Your task to perform on an android device: delete location history Image 0: 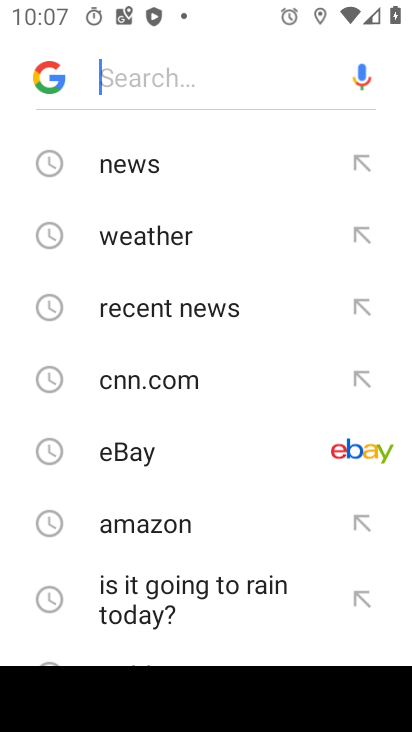
Step 0: press back button
Your task to perform on an android device: delete location history Image 1: 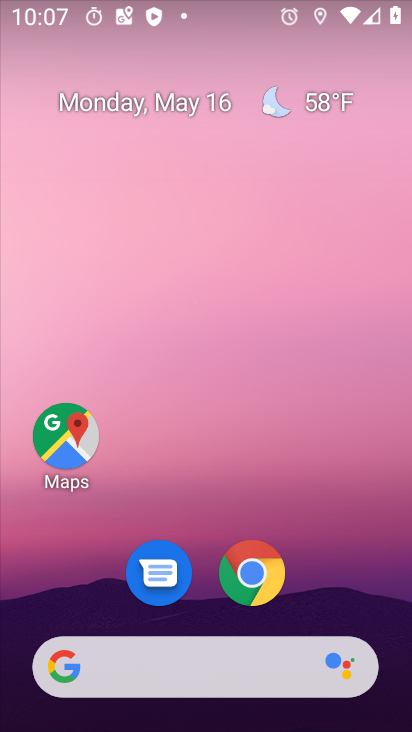
Step 1: click (93, 424)
Your task to perform on an android device: delete location history Image 2: 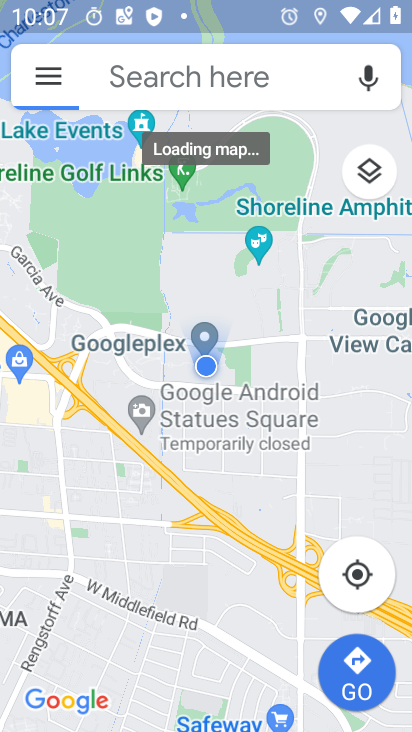
Step 2: click (64, 81)
Your task to perform on an android device: delete location history Image 3: 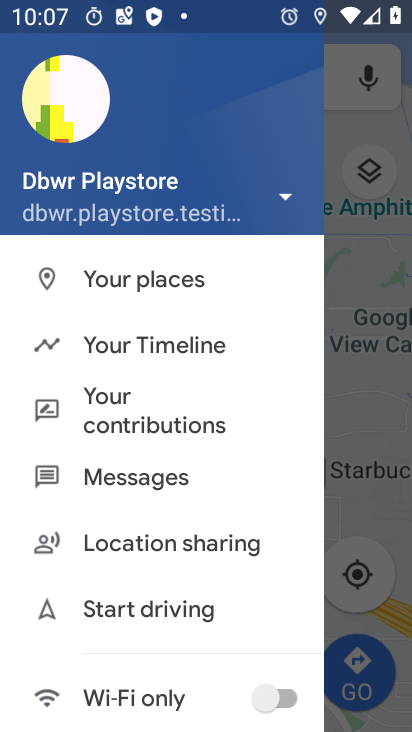
Step 3: click (173, 326)
Your task to perform on an android device: delete location history Image 4: 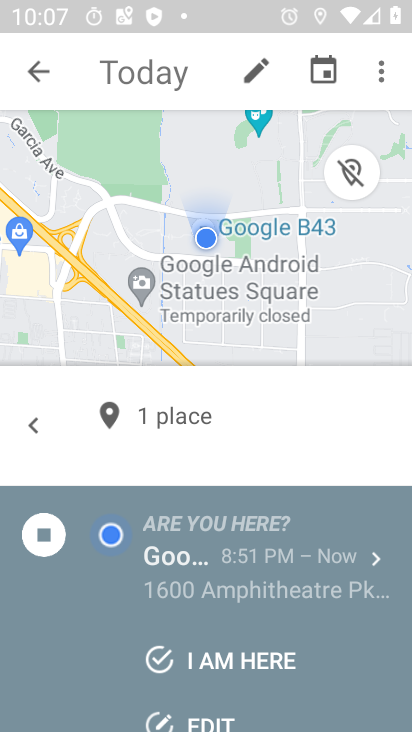
Step 4: drag from (379, 63) to (116, 56)
Your task to perform on an android device: delete location history Image 5: 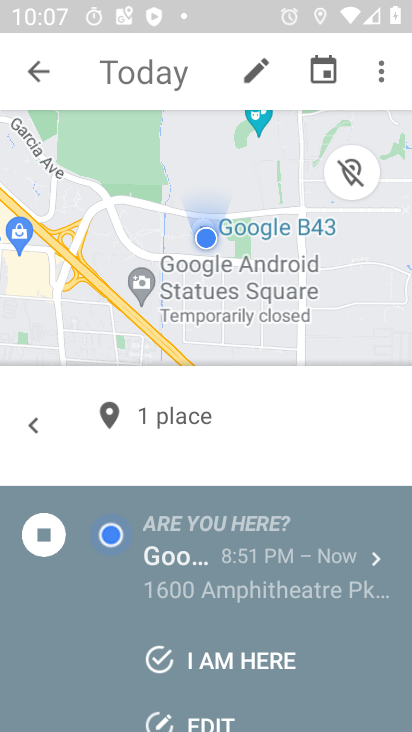
Step 5: click (377, 76)
Your task to perform on an android device: delete location history Image 6: 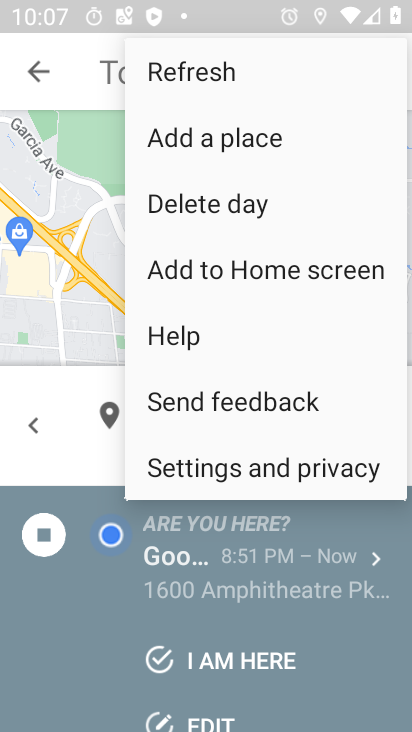
Step 6: click (249, 465)
Your task to perform on an android device: delete location history Image 7: 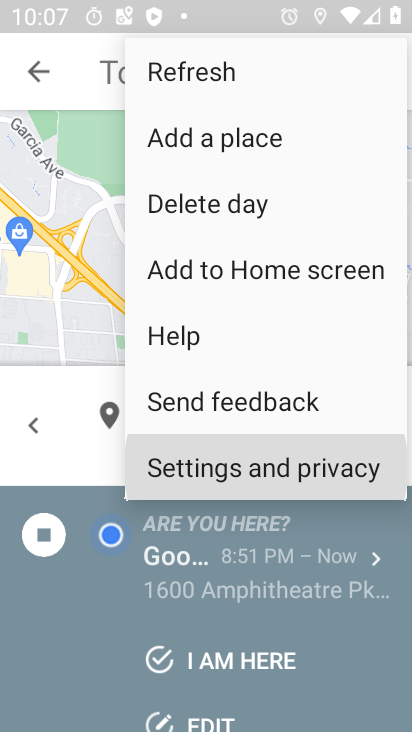
Step 7: click (249, 469)
Your task to perform on an android device: delete location history Image 8: 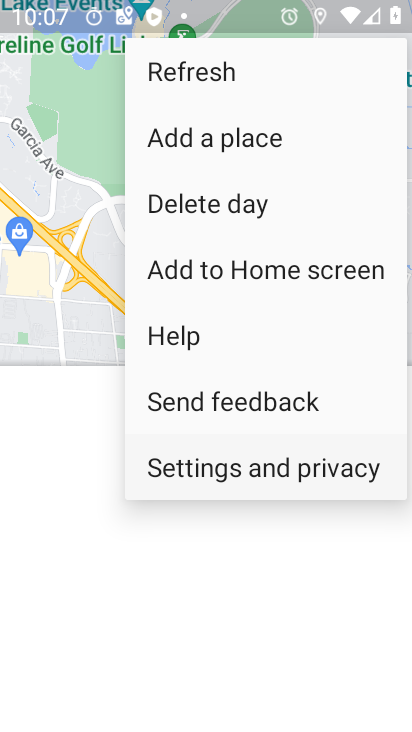
Step 8: click (251, 469)
Your task to perform on an android device: delete location history Image 9: 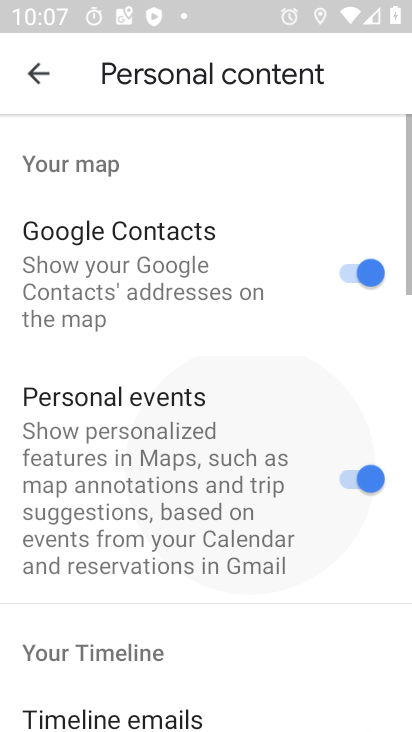
Step 9: click (251, 467)
Your task to perform on an android device: delete location history Image 10: 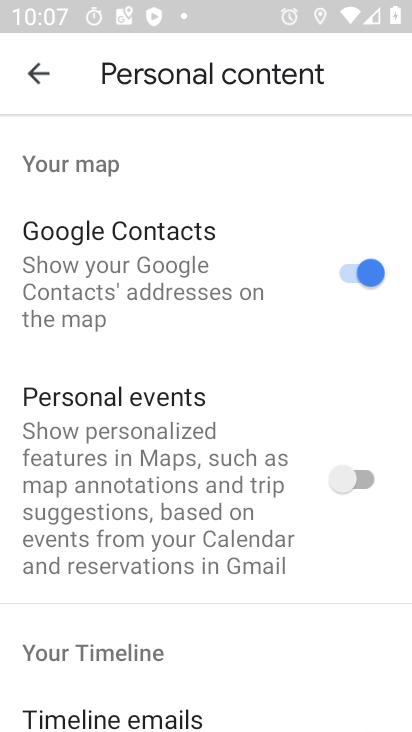
Step 10: click (358, 482)
Your task to perform on an android device: delete location history Image 11: 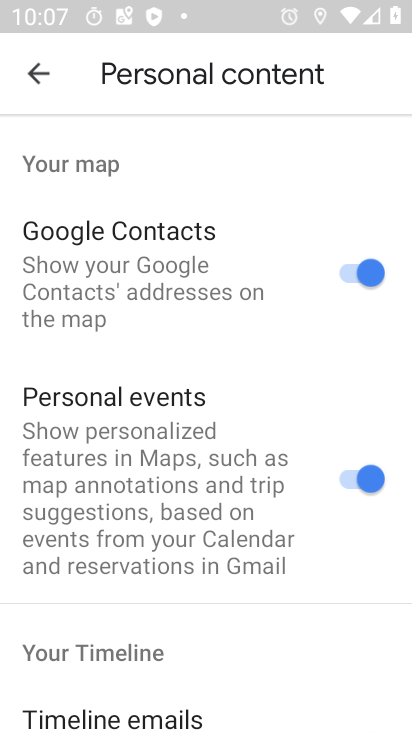
Step 11: drag from (219, 383) to (99, 9)
Your task to perform on an android device: delete location history Image 12: 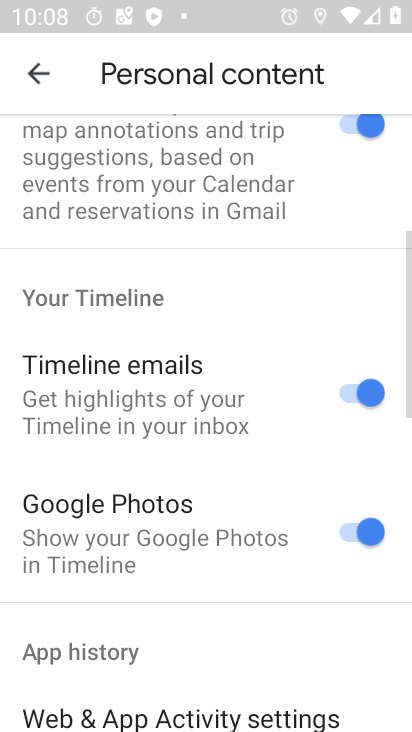
Step 12: drag from (150, 356) to (244, 36)
Your task to perform on an android device: delete location history Image 13: 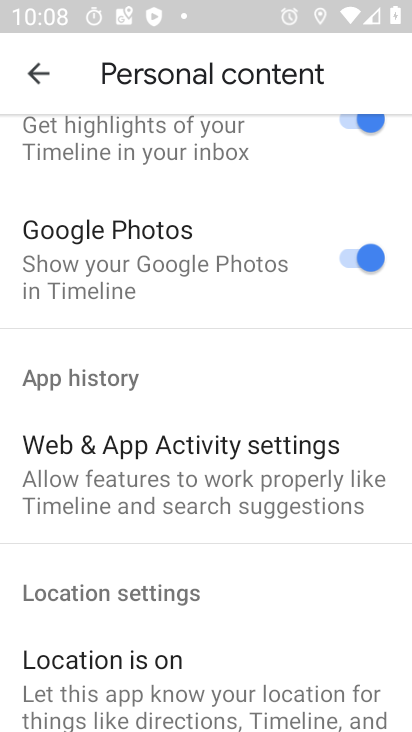
Step 13: drag from (233, 592) to (132, 227)
Your task to perform on an android device: delete location history Image 14: 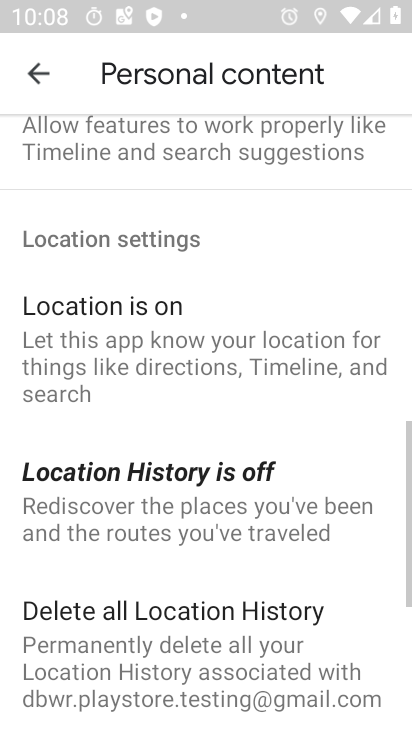
Step 14: drag from (159, 629) to (188, 205)
Your task to perform on an android device: delete location history Image 15: 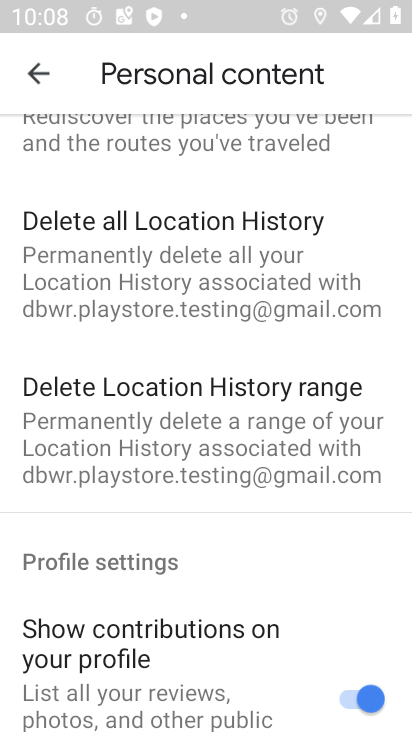
Step 15: click (159, 254)
Your task to perform on an android device: delete location history Image 16: 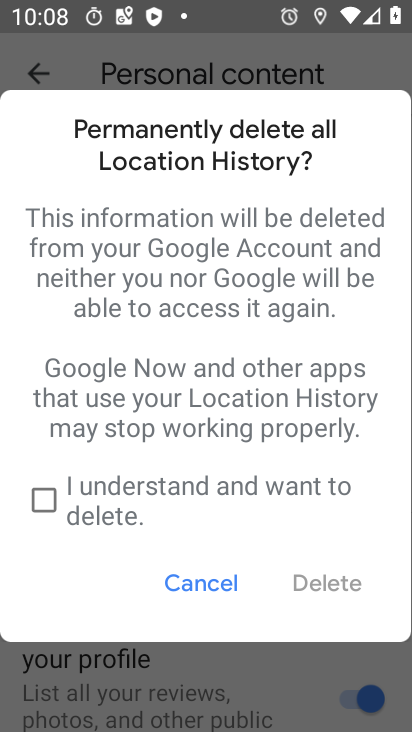
Step 16: click (159, 253)
Your task to perform on an android device: delete location history Image 17: 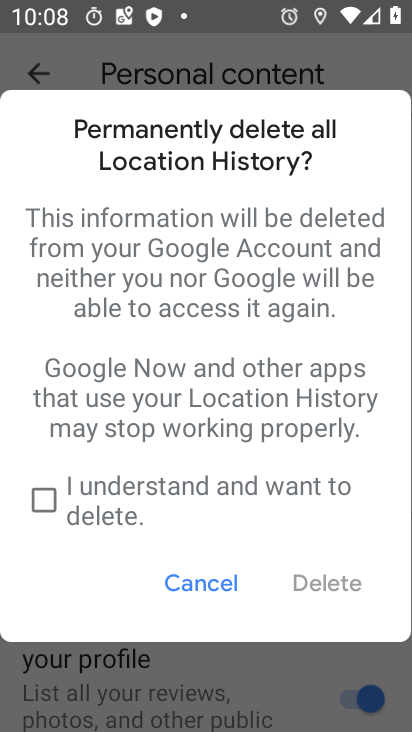
Step 17: click (58, 505)
Your task to perform on an android device: delete location history Image 18: 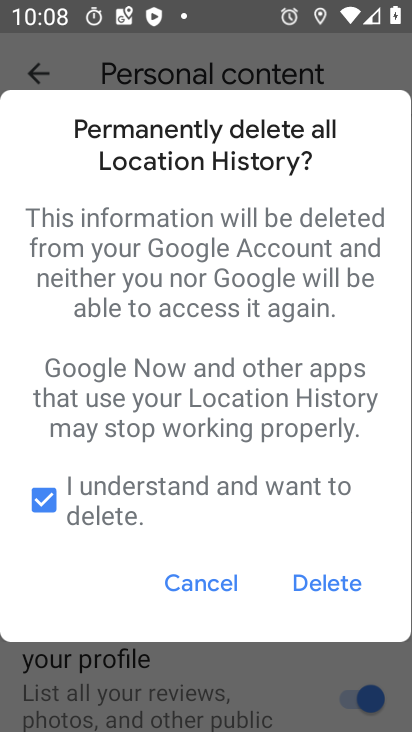
Step 18: click (335, 579)
Your task to perform on an android device: delete location history Image 19: 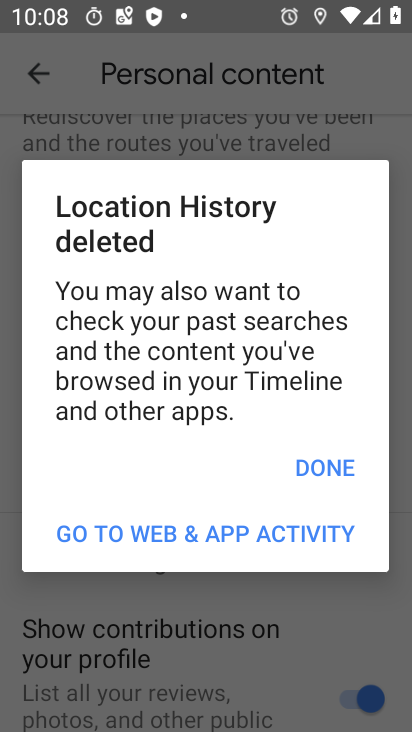
Step 19: click (284, 458)
Your task to perform on an android device: delete location history Image 20: 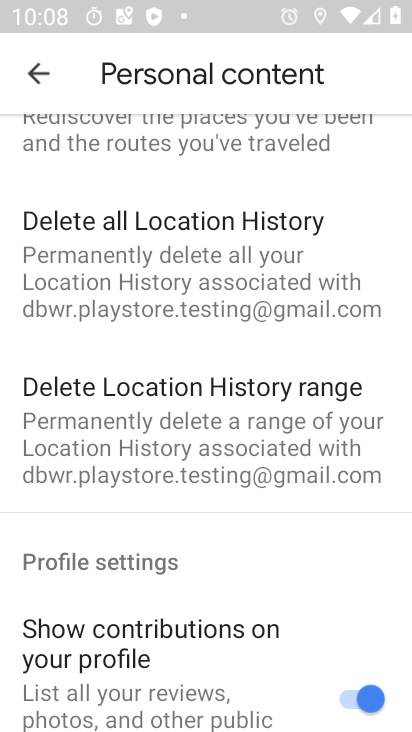
Step 20: click (296, 451)
Your task to perform on an android device: delete location history Image 21: 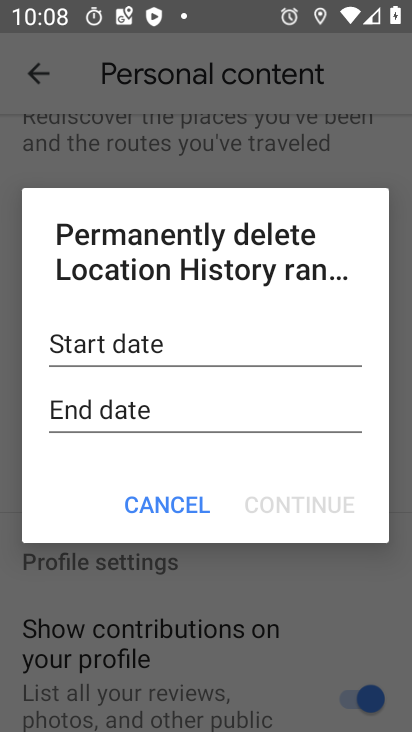
Step 21: task complete